Your task to perform on an android device: snooze an email in the gmail app Image 0: 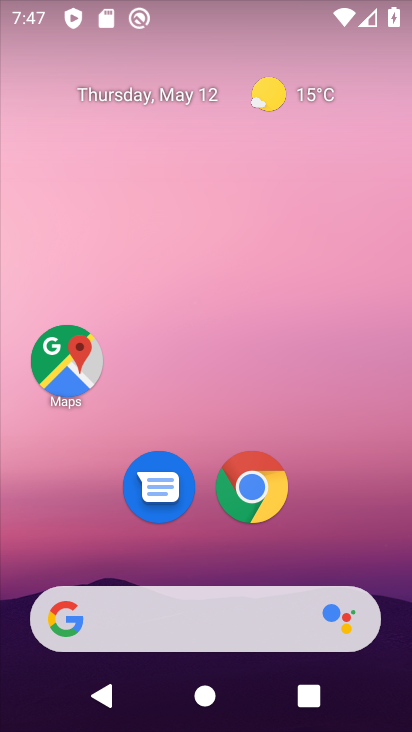
Step 0: drag from (365, 536) to (403, 33)
Your task to perform on an android device: snooze an email in the gmail app Image 1: 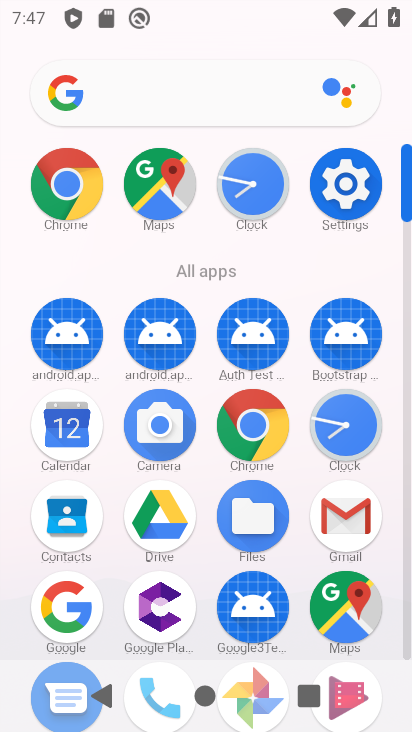
Step 1: click (337, 514)
Your task to perform on an android device: snooze an email in the gmail app Image 2: 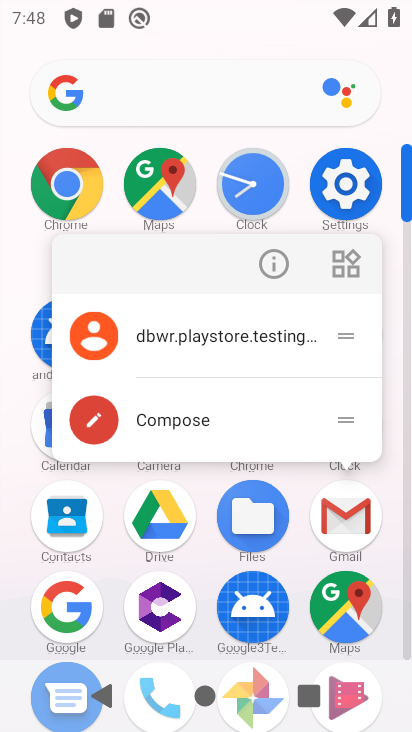
Step 2: click (337, 514)
Your task to perform on an android device: snooze an email in the gmail app Image 3: 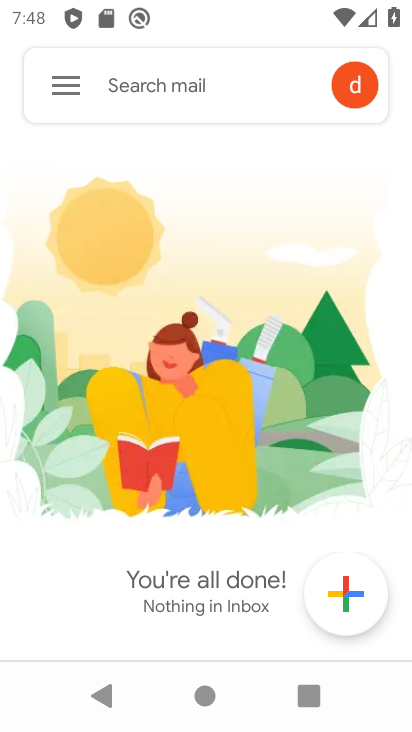
Step 3: click (63, 96)
Your task to perform on an android device: snooze an email in the gmail app Image 4: 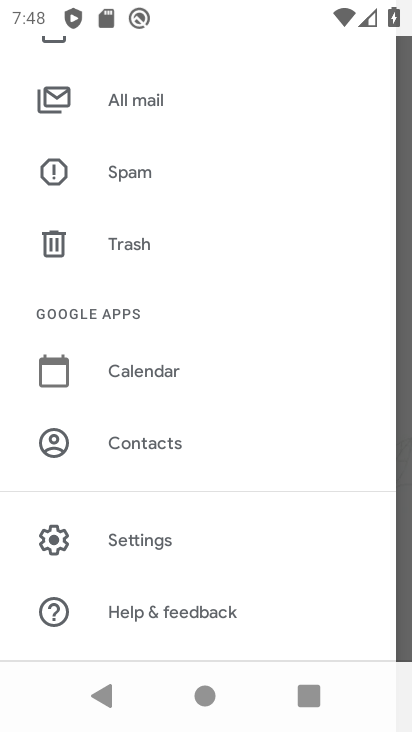
Step 4: click (124, 105)
Your task to perform on an android device: snooze an email in the gmail app Image 5: 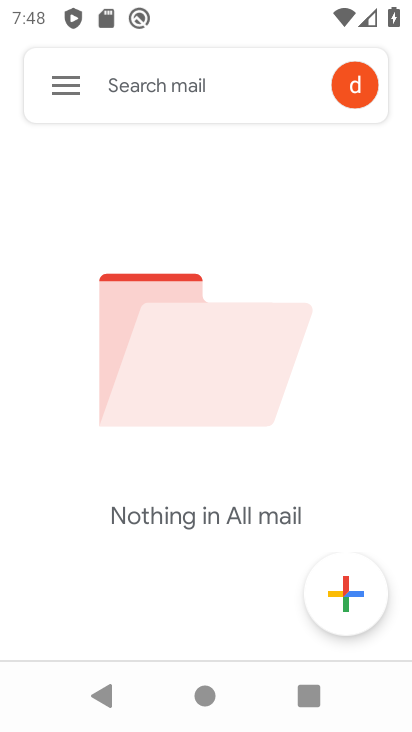
Step 5: task complete